Your task to perform on an android device: What's the weather today? Image 0: 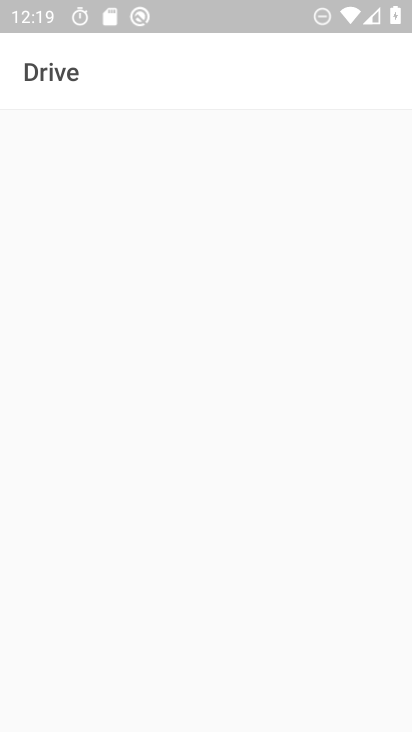
Step 0: press back button
Your task to perform on an android device: What's the weather today? Image 1: 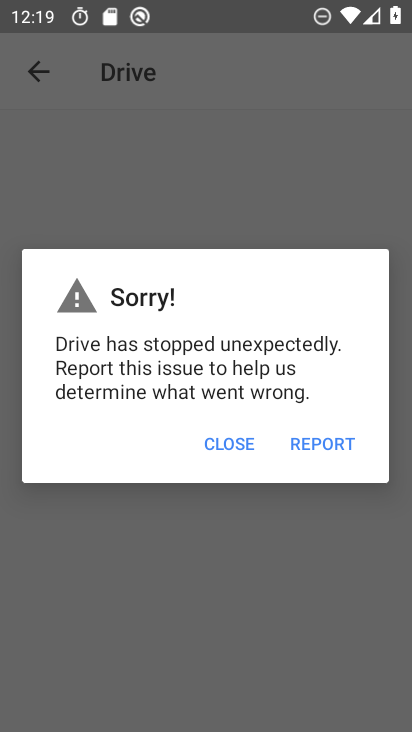
Step 1: press home button
Your task to perform on an android device: What's the weather today? Image 2: 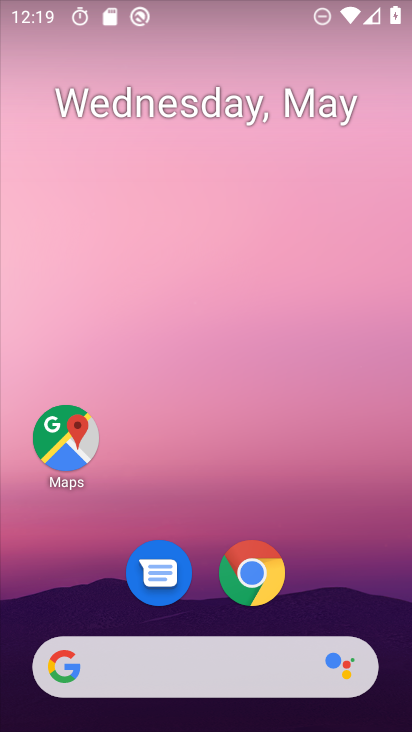
Step 2: drag from (312, 555) to (223, 30)
Your task to perform on an android device: What's the weather today? Image 3: 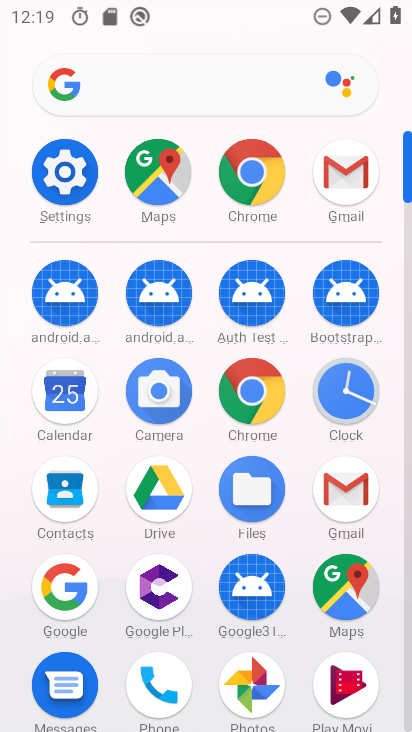
Step 3: drag from (3, 575) to (25, 294)
Your task to perform on an android device: What's the weather today? Image 4: 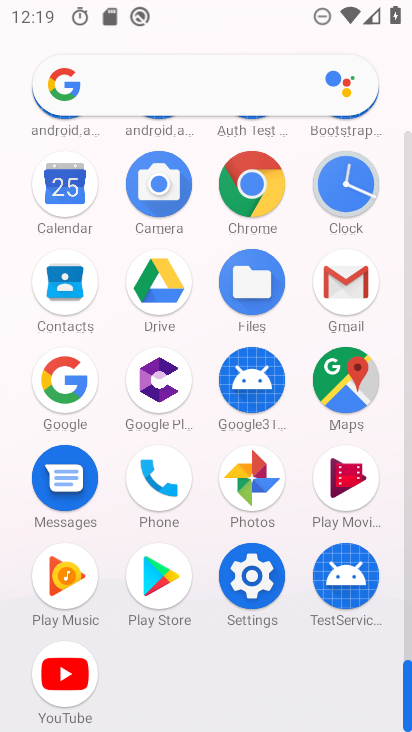
Step 4: click (250, 178)
Your task to perform on an android device: What's the weather today? Image 5: 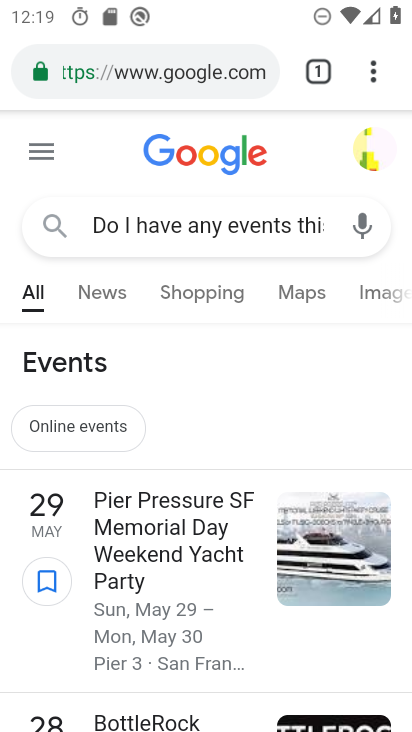
Step 5: click (128, 64)
Your task to perform on an android device: What's the weather today? Image 6: 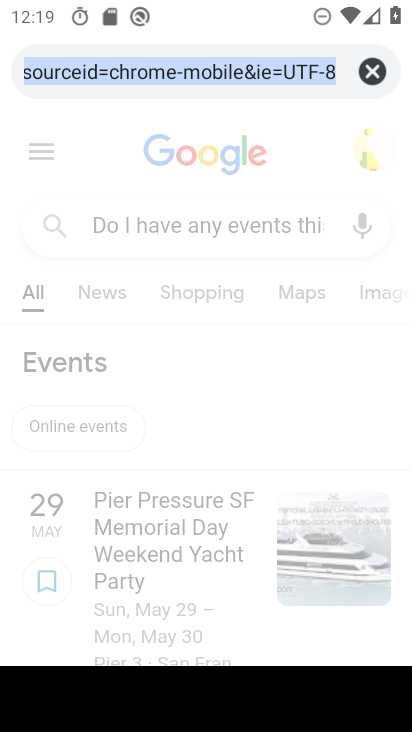
Step 6: click (375, 63)
Your task to perform on an android device: What's the weather today? Image 7: 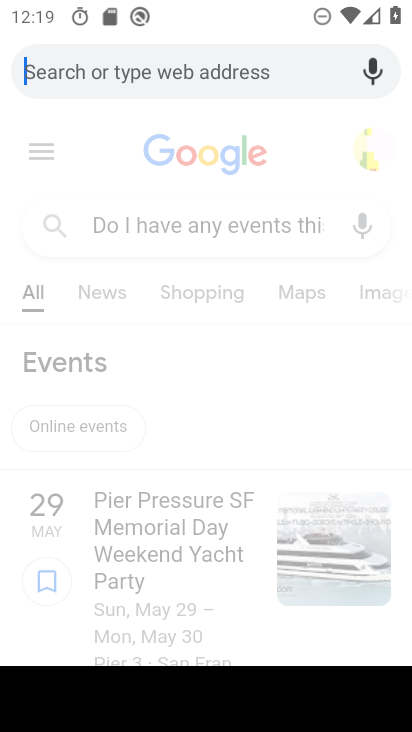
Step 7: type "What's the weather today?"
Your task to perform on an android device: What's the weather today? Image 8: 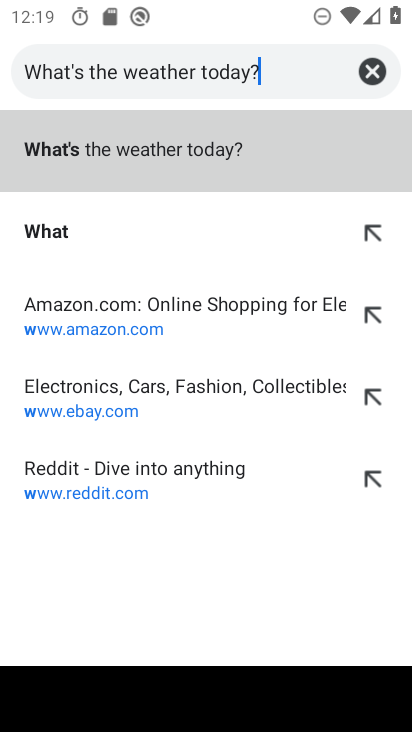
Step 8: type ""
Your task to perform on an android device: What's the weather today? Image 9: 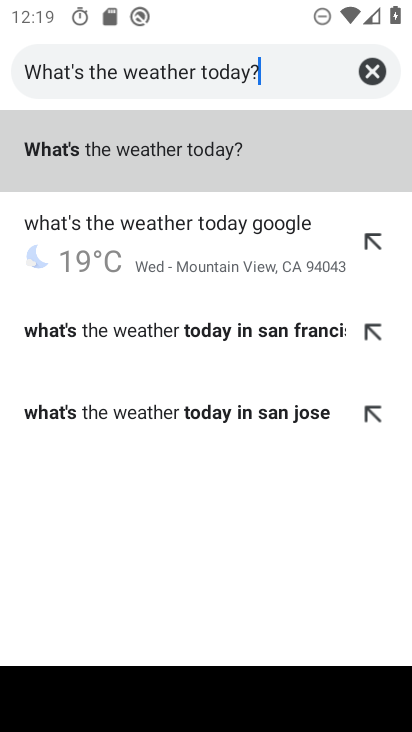
Step 9: click (172, 137)
Your task to perform on an android device: What's the weather today? Image 10: 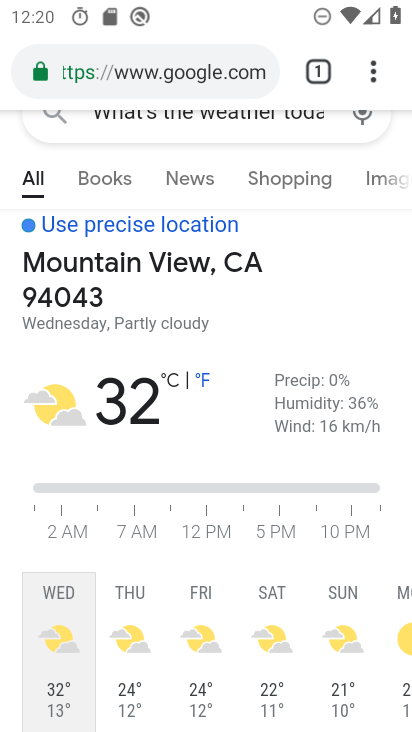
Step 10: task complete